Your task to perform on an android device: toggle airplane mode Image 0: 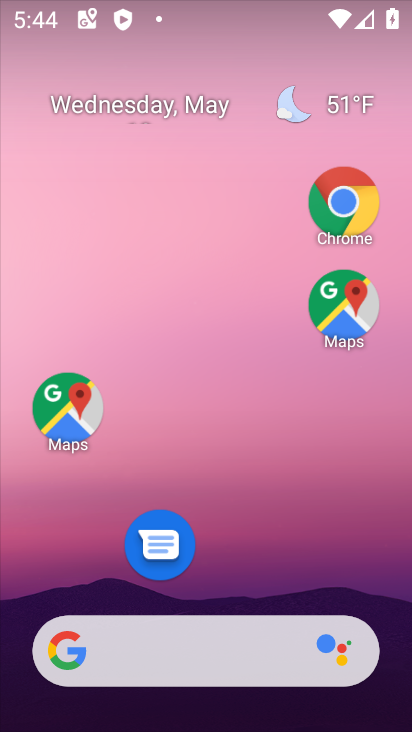
Step 0: drag from (242, 565) to (205, 1)
Your task to perform on an android device: toggle airplane mode Image 1: 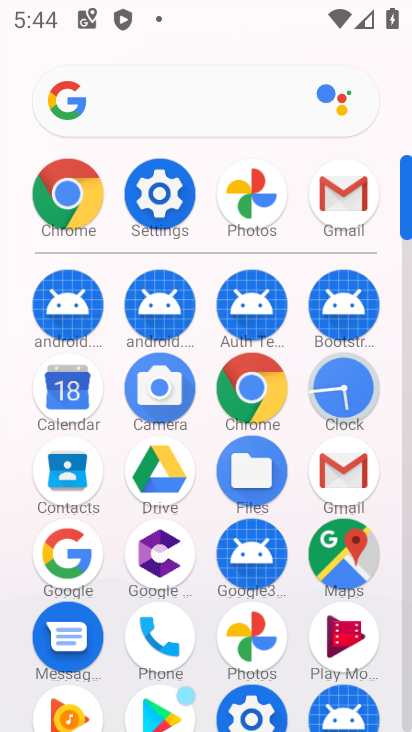
Step 1: click (151, 199)
Your task to perform on an android device: toggle airplane mode Image 2: 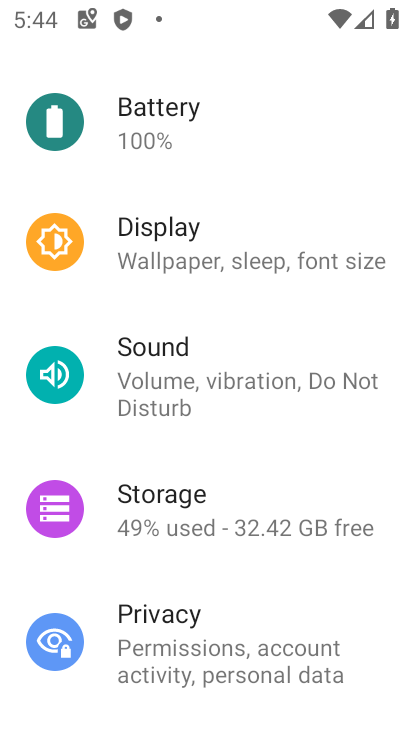
Step 2: drag from (201, 225) to (224, 649)
Your task to perform on an android device: toggle airplane mode Image 3: 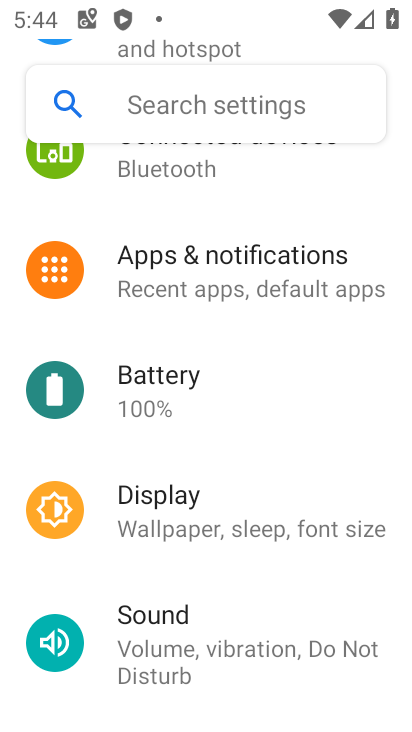
Step 3: drag from (232, 268) to (187, 679)
Your task to perform on an android device: toggle airplane mode Image 4: 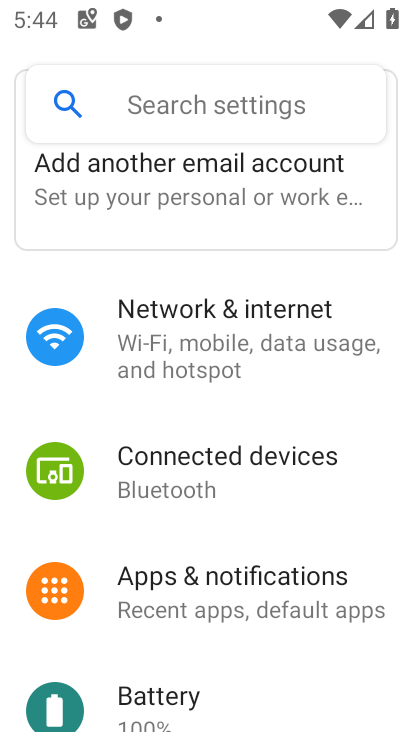
Step 4: click (188, 345)
Your task to perform on an android device: toggle airplane mode Image 5: 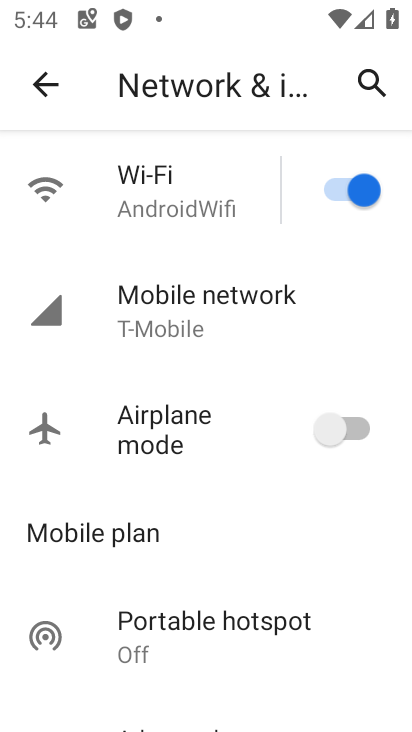
Step 5: click (353, 438)
Your task to perform on an android device: toggle airplane mode Image 6: 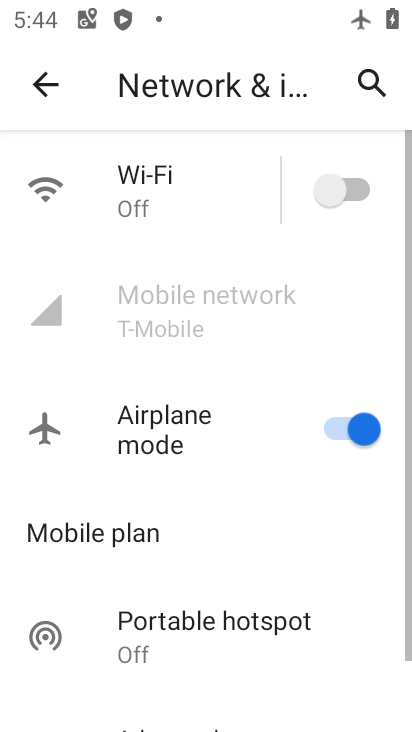
Step 6: task complete